Your task to perform on an android device: What's on my calendar tomorrow? Image 0: 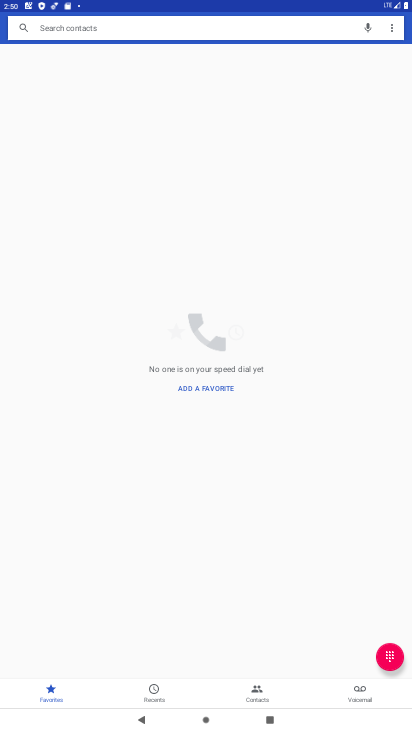
Step 0: press home button
Your task to perform on an android device: What's on my calendar tomorrow? Image 1: 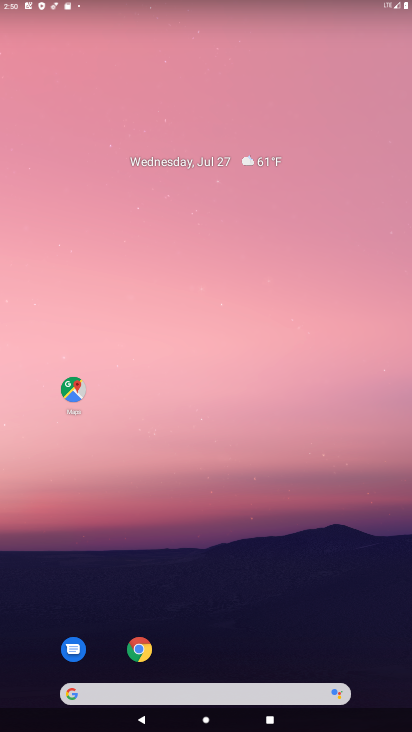
Step 1: click (62, 393)
Your task to perform on an android device: What's on my calendar tomorrow? Image 2: 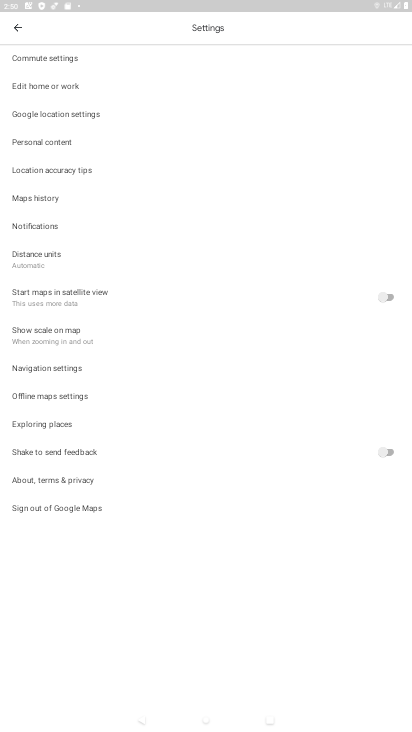
Step 2: click (15, 30)
Your task to perform on an android device: What's on my calendar tomorrow? Image 3: 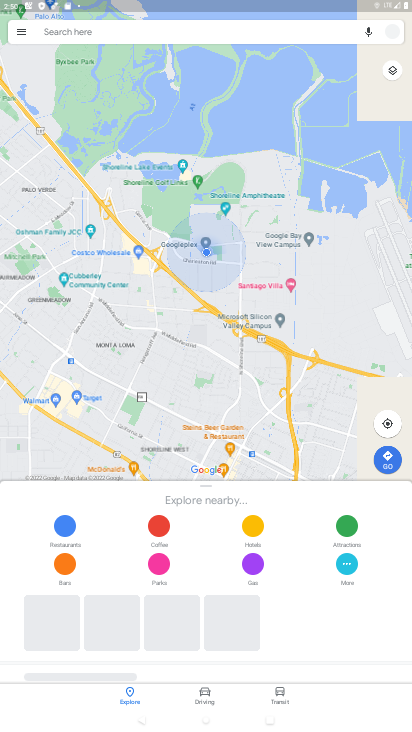
Step 3: click (15, 30)
Your task to perform on an android device: What's on my calendar tomorrow? Image 4: 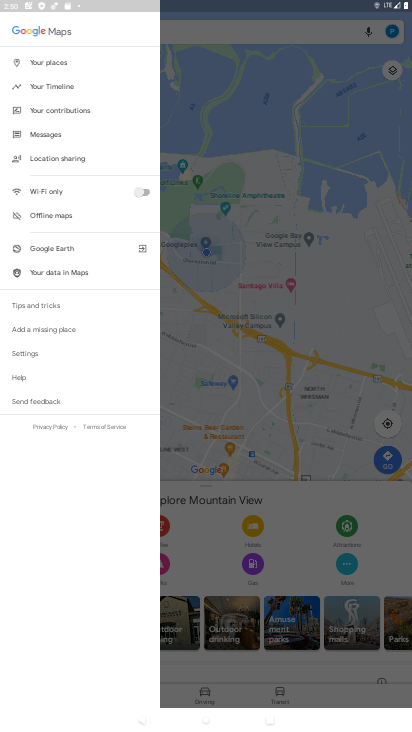
Step 4: press home button
Your task to perform on an android device: What's on my calendar tomorrow? Image 5: 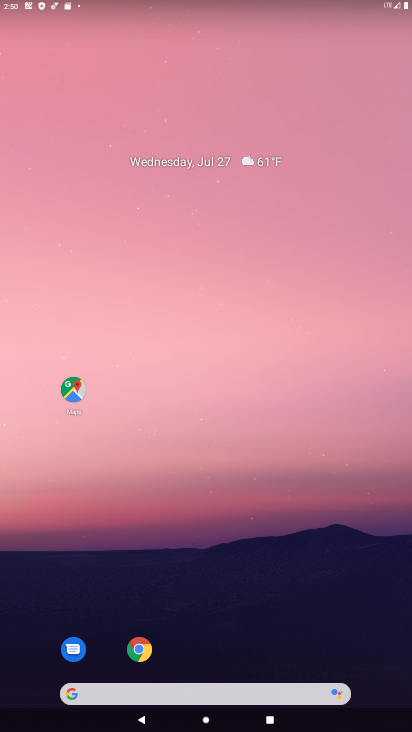
Step 5: drag from (213, 652) to (220, 139)
Your task to perform on an android device: What's on my calendar tomorrow? Image 6: 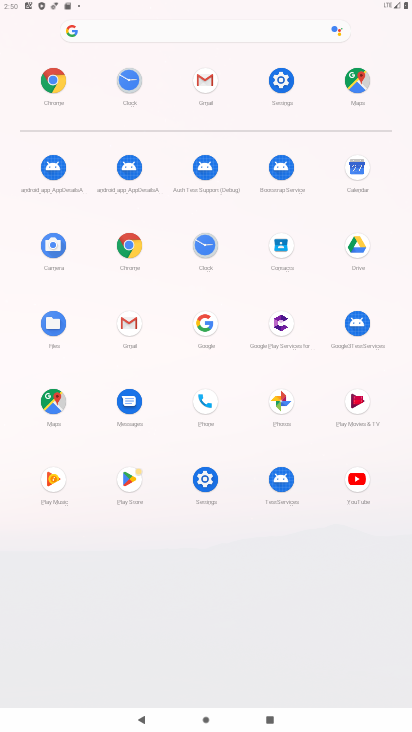
Step 6: click (363, 177)
Your task to perform on an android device: What's on my calendar tomorrow? Image 7: 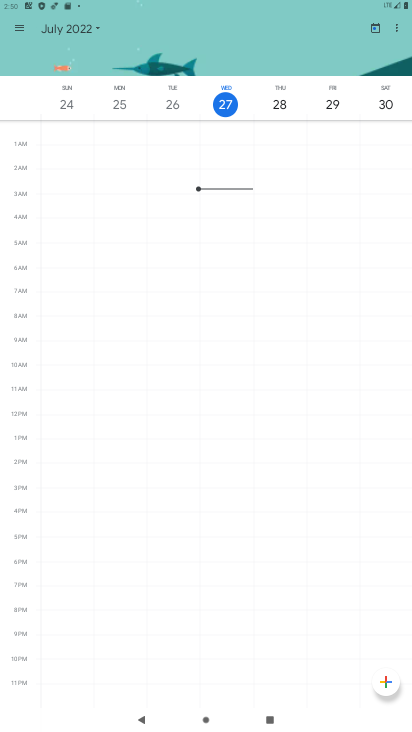
Step 7: click (279, 102)
Your task to perform on an android device: What's on my calendar tomorrow? Image 8: 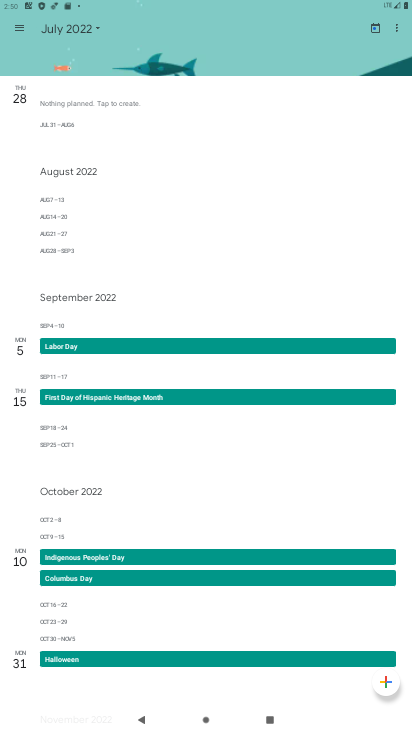
Step 8: task complete